Your task to perform on an android device: open app "Google Chrome" Image 0: 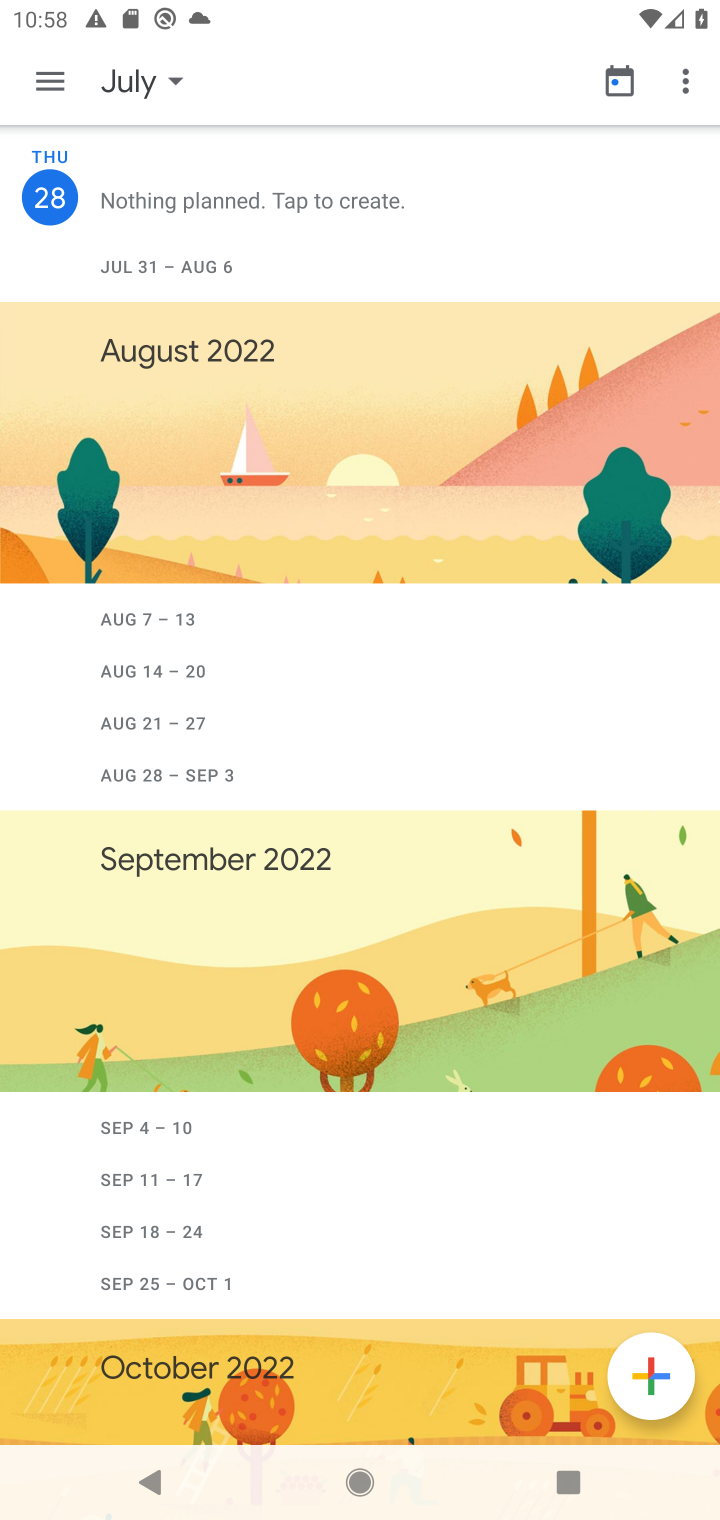
Step 0: drag from (580, 1273) to (563, 829)
Your task to perform on an android device: open app "Google Chrome" Image 1: 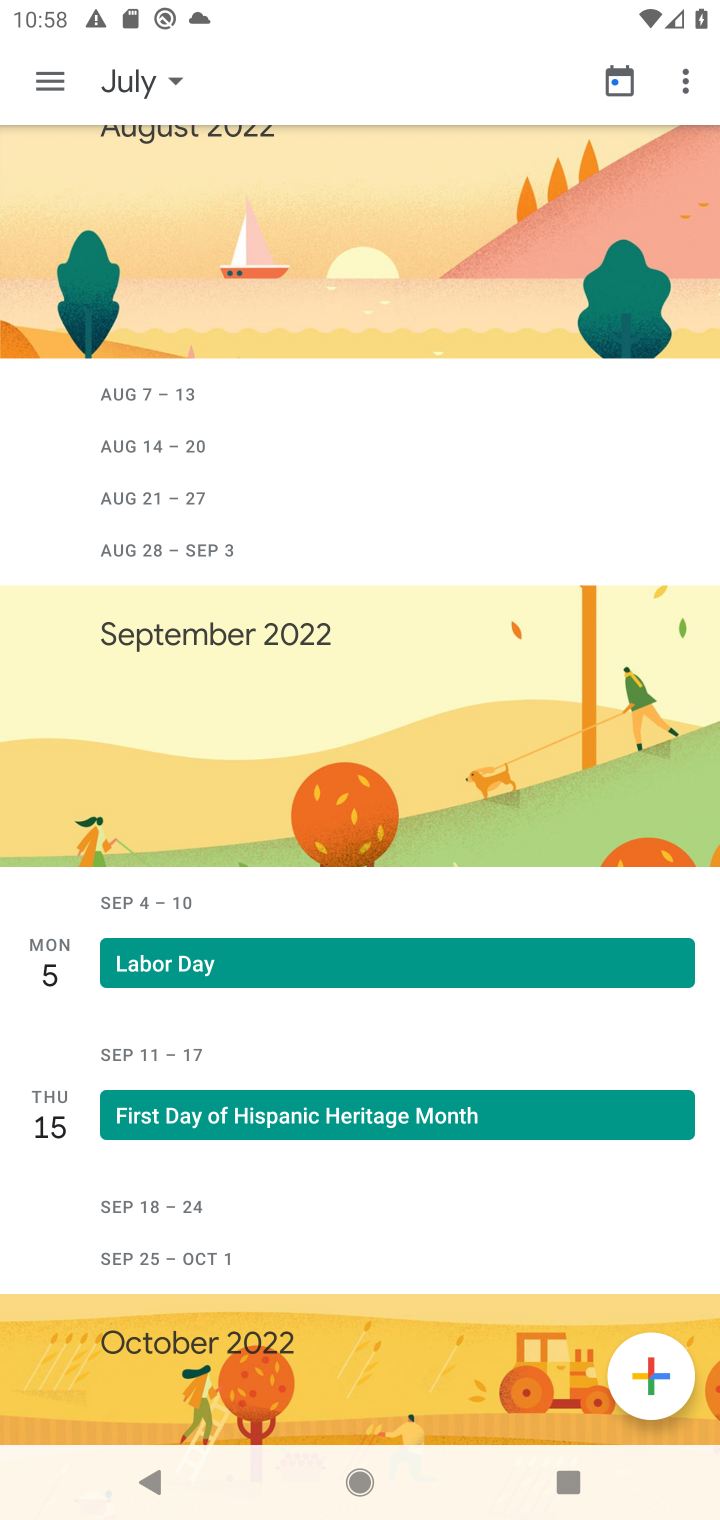
Step 1: press back button
Your task to perform on an android device: open app "Google Chrome" Image 2: 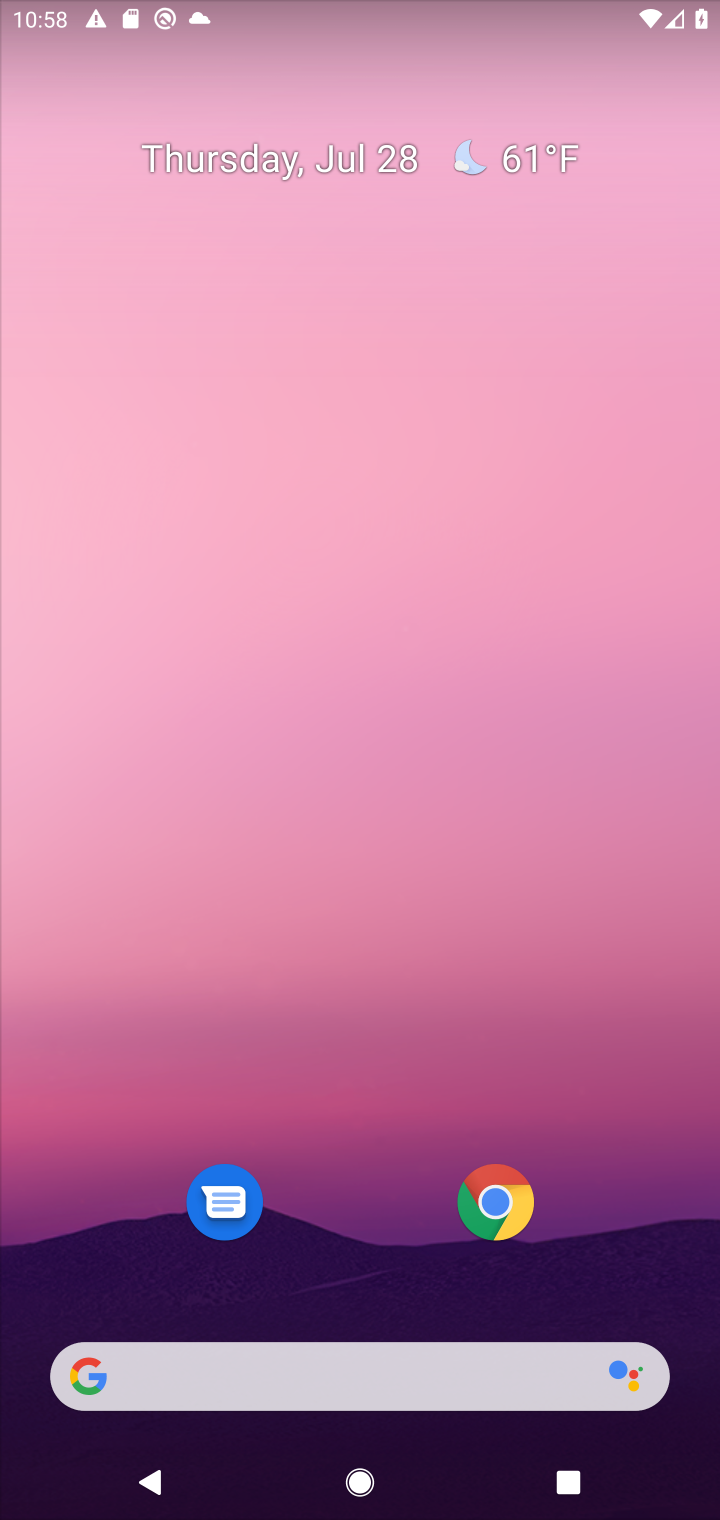
Step 2: click (498, 1230)
Your task to perform on an android device: open app "Google Chrome" Image 3: 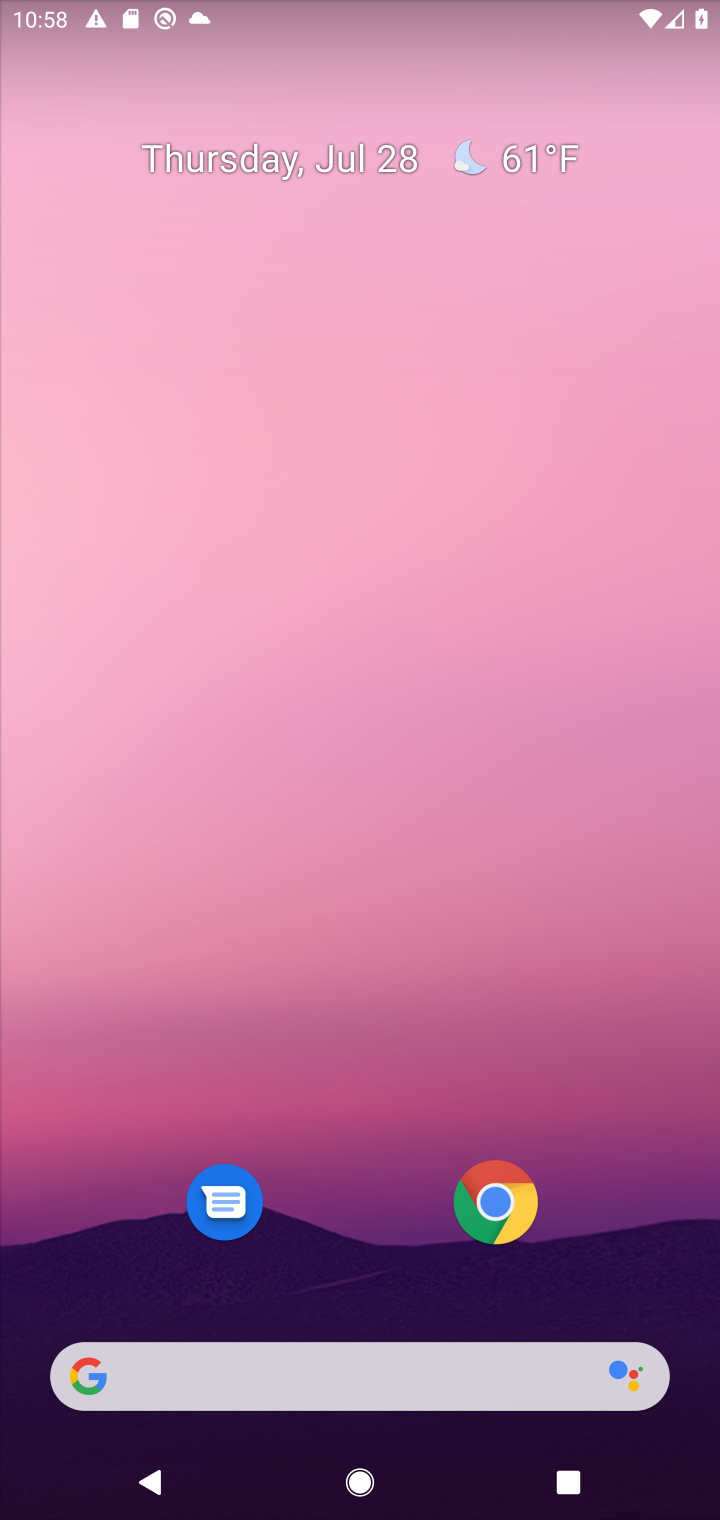
Step 3: task complete